Your task to perform on an android device: clear all cookies in the chrome app Image 0: 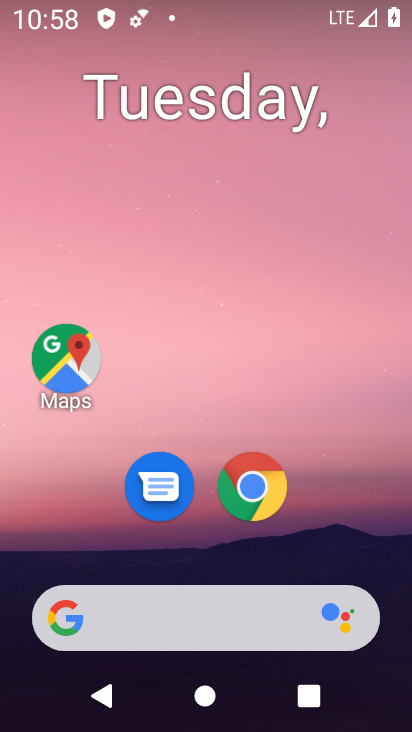
Step 0: drag from (365, 555) to (358, 140)
Your task to perform on an android device: clear all cookies in the chrome app Image 1: 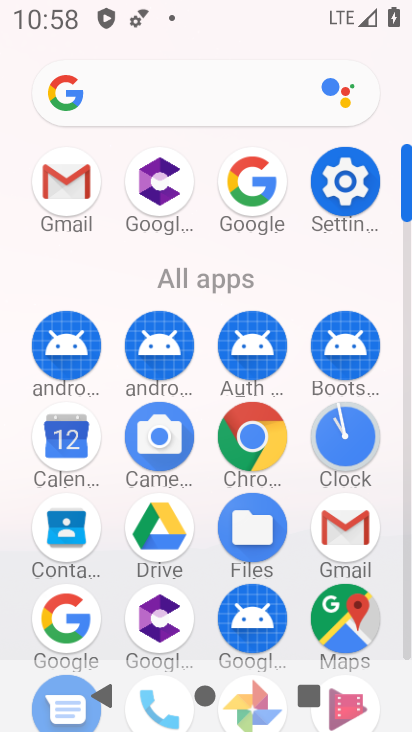
Step 1: click (268, 431)
Your task to perform on an android device: clear all cookies in the chrome app Image 2: 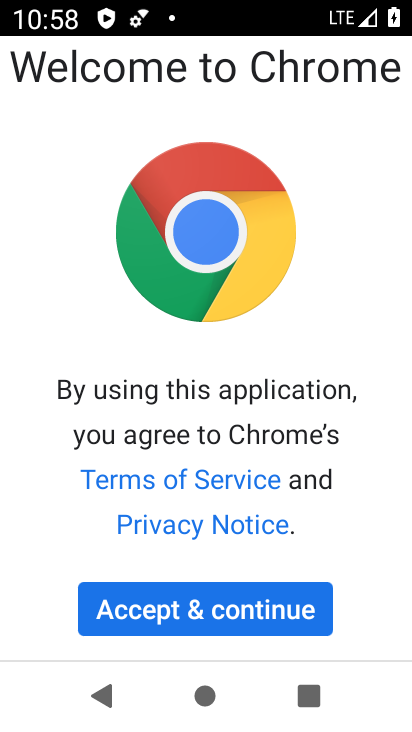
Step 2: click (303, 611)
Your task to perform on an android device: clear all cookies in the chrome app Image 3: 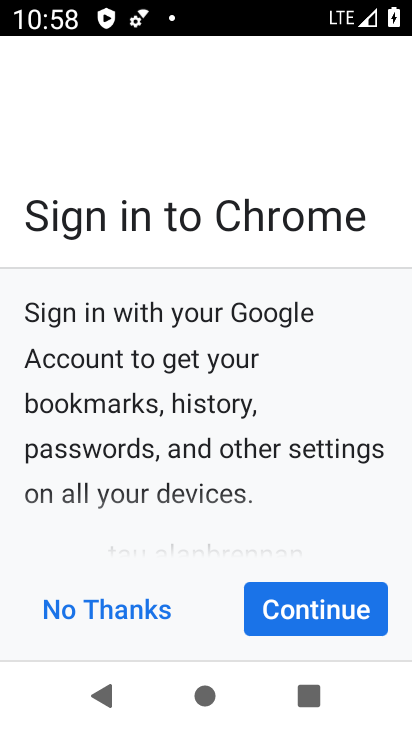
Step 3: click (303, 611)
Your task to perform on an android device: clear all cookies in the chrome app Image 4: 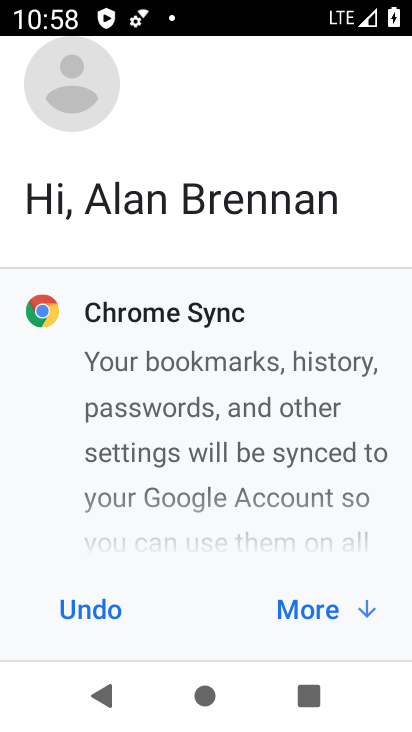
Step 4: click (303, 611)
Your task to perform on an android device: clear all cookies in the chrome app Image 5: 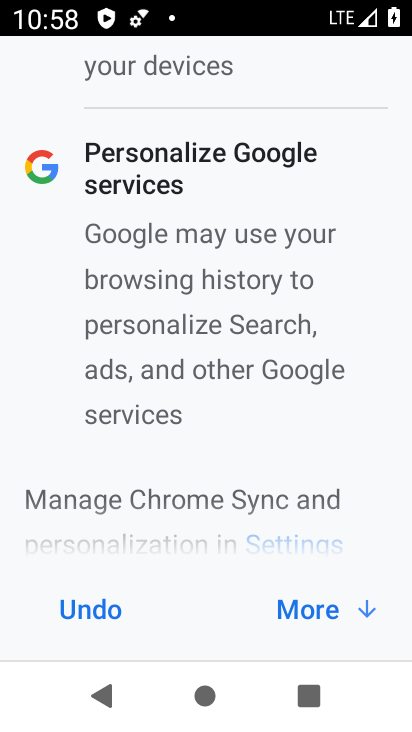
Step 5: click (303, 611)
Your task to perform on an android device: clear all cookies in the chrome app Image 6: 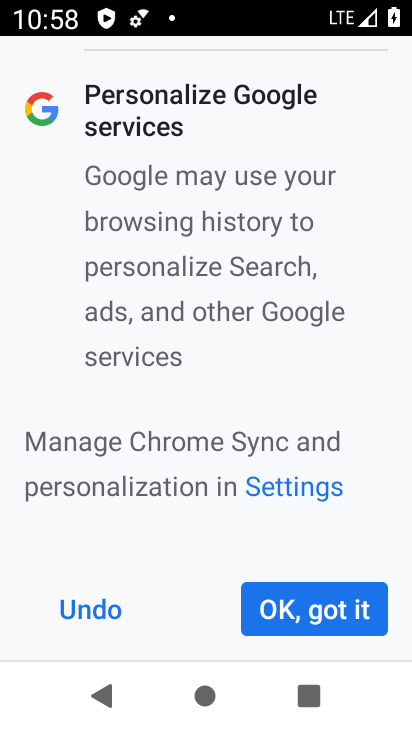
Step 6: click (303, 611)
Your task to perform on an android device: clear all cookies in the chrome app Image 7: 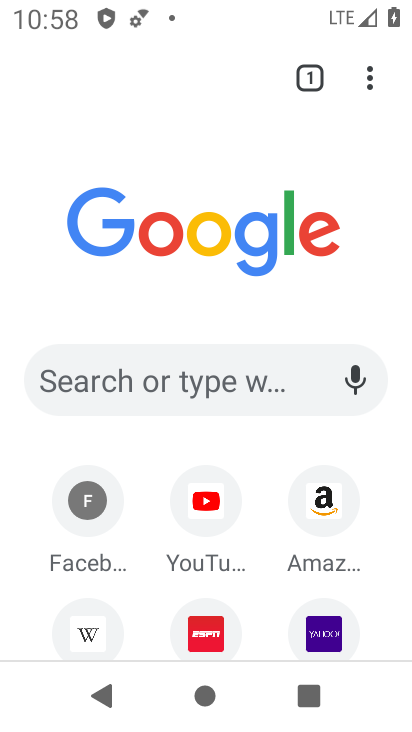
Step 7: click (369, 91)
Your task to perform on an android device: clear all cookies in the chrome app Image 8: 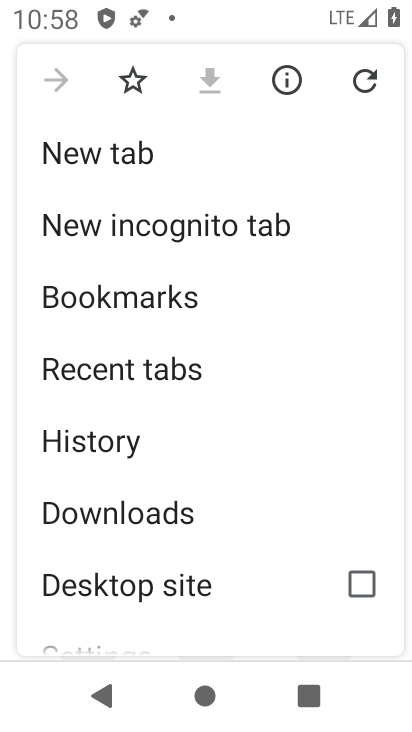
Step 8: drag from (303, 450) to (308, 340)
Your task to perform on an android device: clear all cookies in the chrome app Image 9: 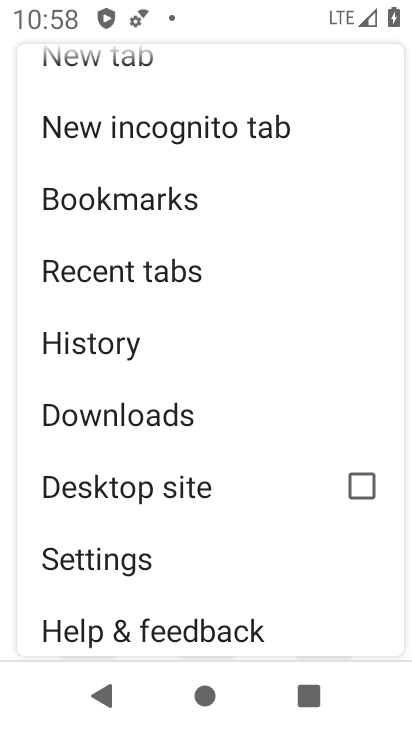
Step 9: click (181, 563)
Your task to perform on an android device: clear all cookies in the chrome app Image 10: 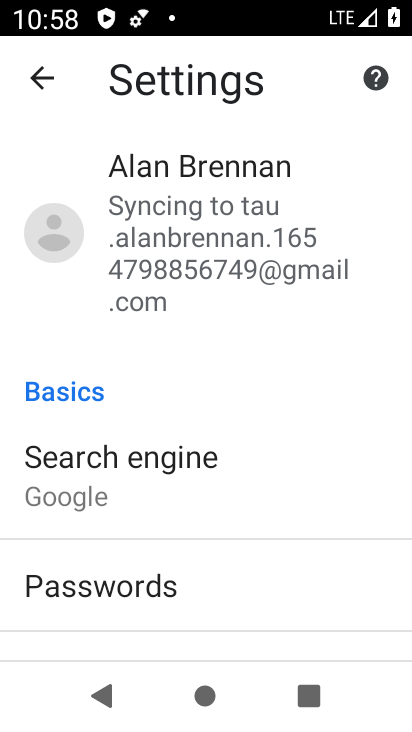
Step 10: drag from (325, 546) to (325, 402)
Your task to perform on an android device: clear all cookies in the chrome app Image 11: 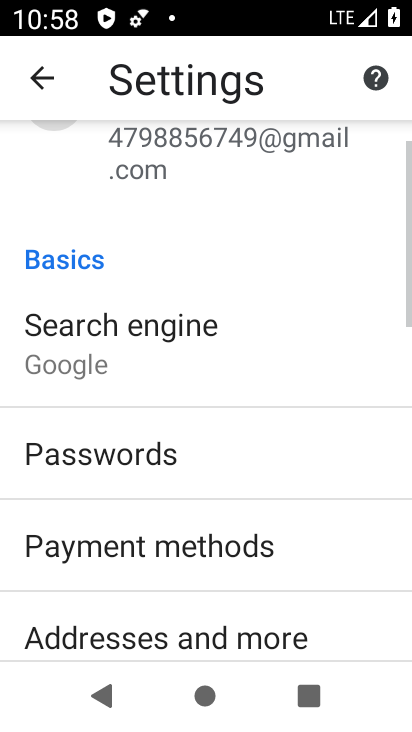
Step 11: drag from (340, 532) to (343, 383)
Your task to perform on an android device: clear all cookies in the chrome app Image 12: 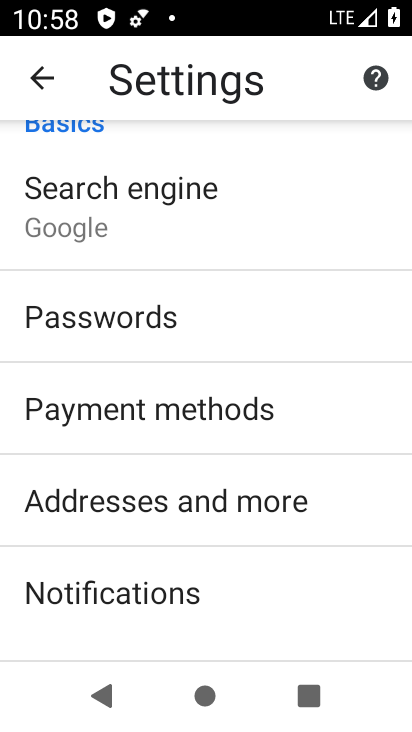
Step 12: drag from (338, 566) to (332, 440)
Your task to perform on an android device: clear all cookies in the chrome app Image 13: 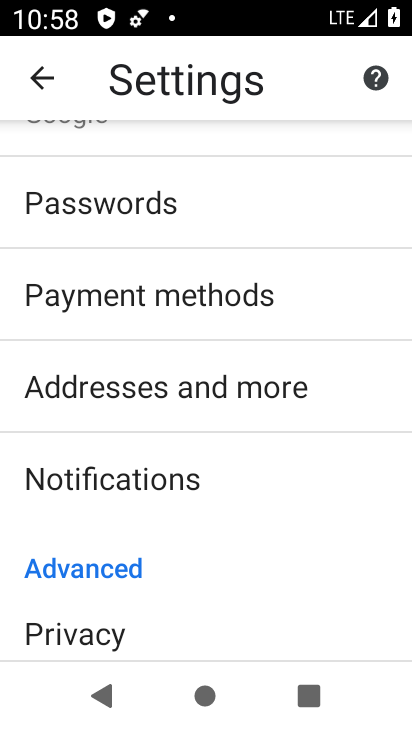
Step 13: drag from (325, 563) to (324, 410)
Your task to perform on an android device: clear all cookies in the chrome app Image 14: 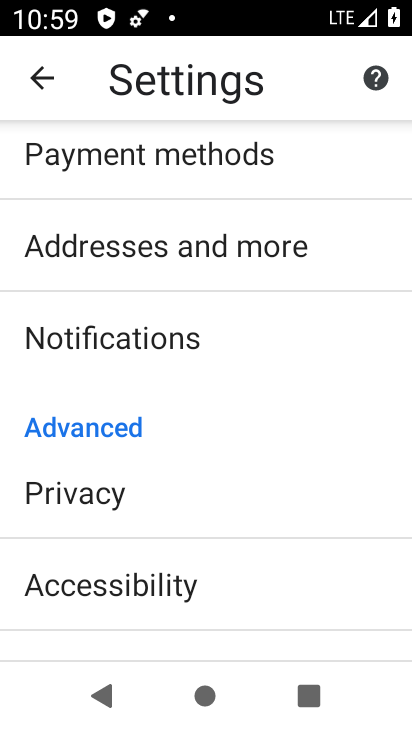
Step 14: click (214, 509)
Your task to perform on an android device: clear all cookies in the chrome app Image 15: 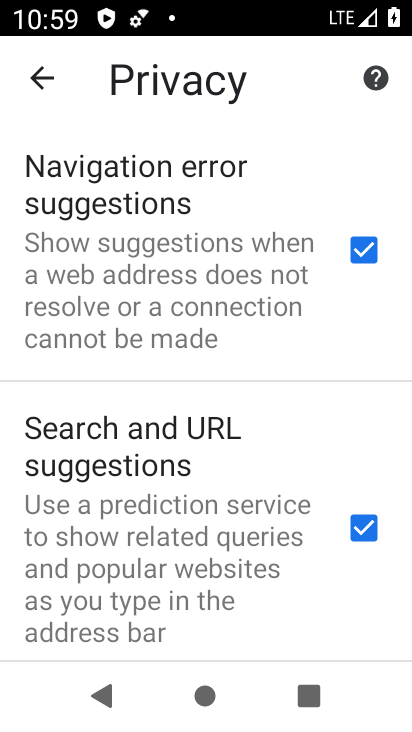
Step 15: drag from (279, 564) to (288, 408)
Your task to perform on an android device: clear all cookies in the chrome app Image 16: 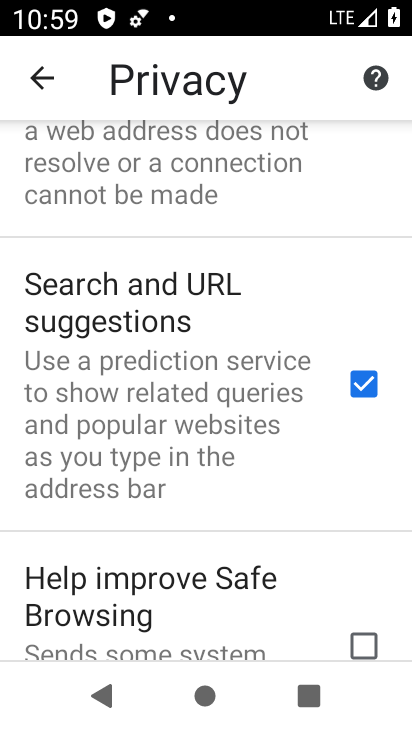
Step 16: drag from (296, 522) to (299, 335)
Your task to perform on an android device: clear all cookies in the chrome app Image 17: 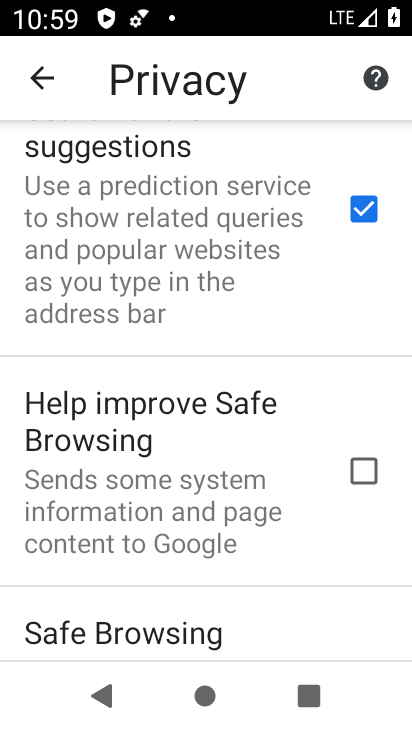
Step 17: drag from (299, 499) to (300, 311)
Your task to perform on an android device: clear all cookies in the chrome app Image 18: 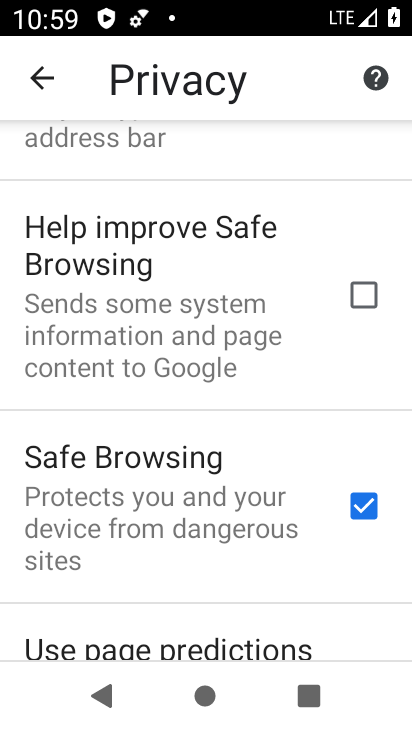
Step 18: drag from (280, 549) to (284, 322)
Your task to perform on an android device: clear all cookies in the chrome app Image 19: 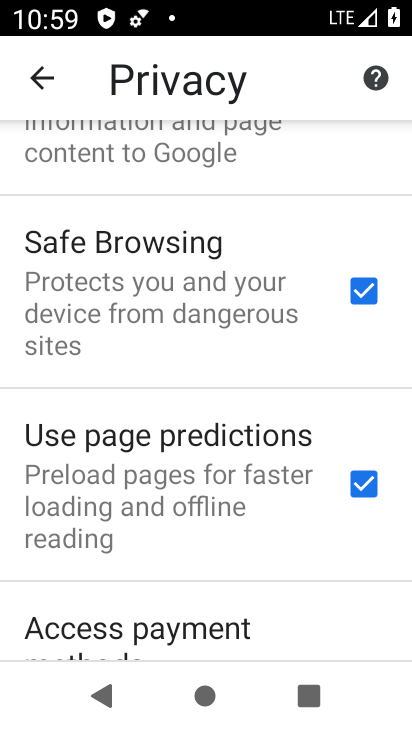
Step 19: drag from (293, 591) to (293, 320)
Your task to perform on an android device: clear all cookies in the chrome app Image 20: 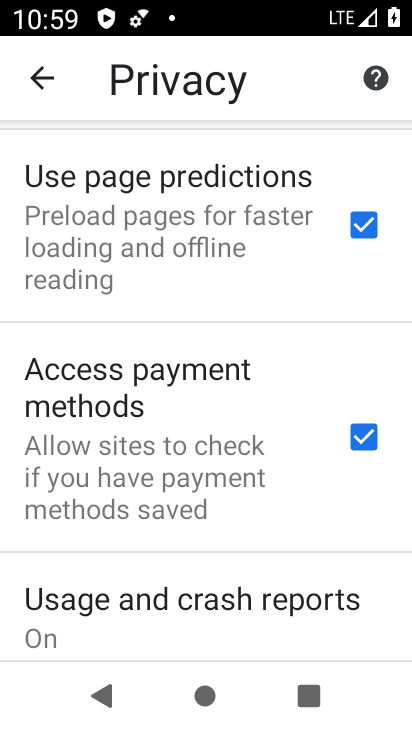
Step 20: drag from (281, 540) to (283, 401)
Your task to perform on an android device: clear all cookies in the chrome app Image 21: 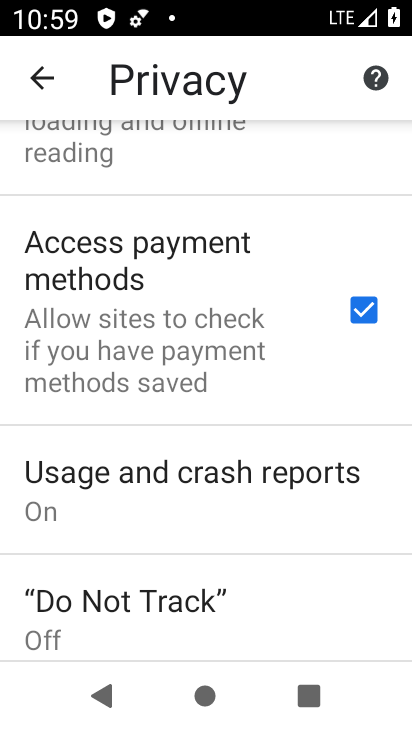
Step 21: drag from (294, 548) to (286, 340)
Your task to perform on an android device: clear all cookies in the chrome app Image 22: 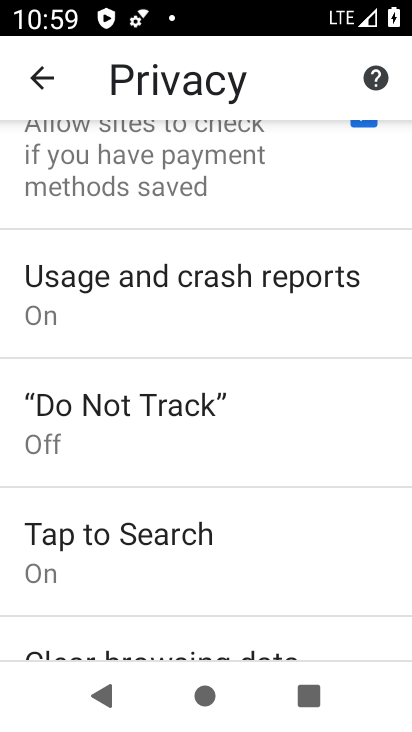
Step 22: drag from (274, 520) to (286, 411)
Your task to perform on an android device: clear all cookies in the chrome app Image 23: 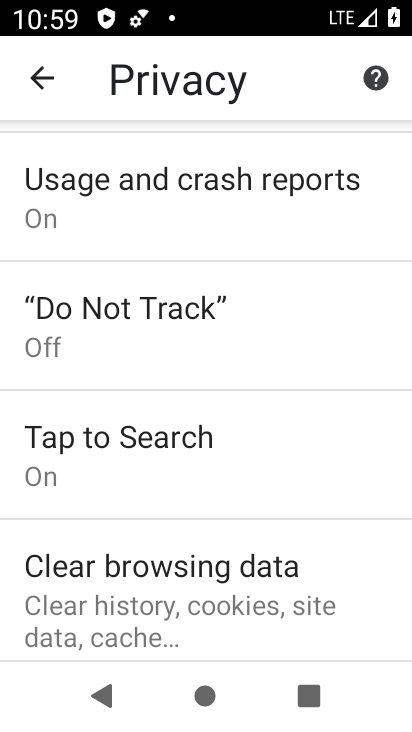
Step 23: drag from (304, 551) to (303, 442)
Your task to perform on an android device: clear all cookies in the chrome app Image 24: 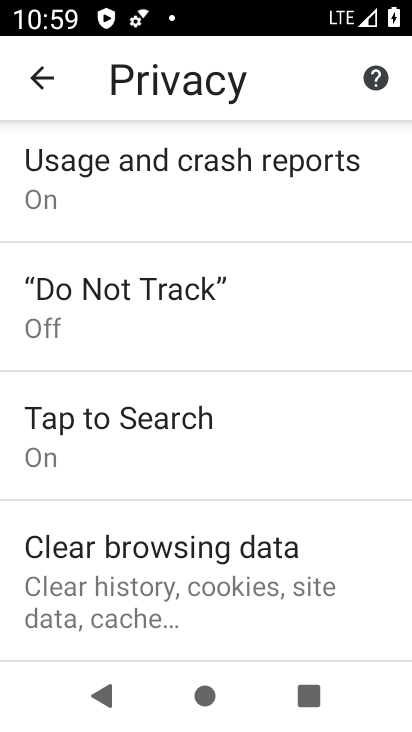
Step 24: drag from (287, 564) to (283, 446)
Your task to perform on an android device: clear all cookies in the chrome app Image 25: 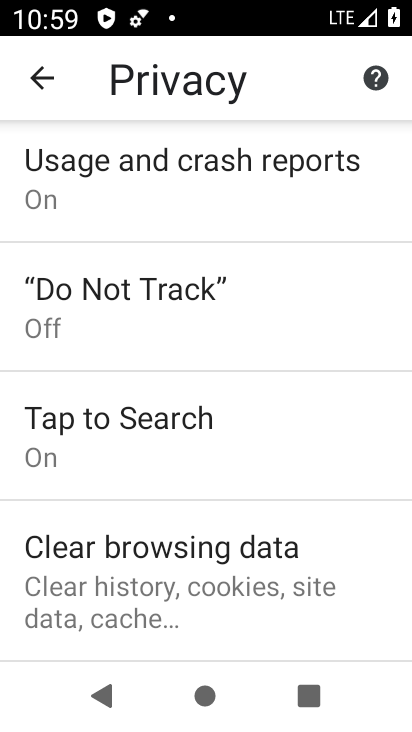
Step 25: click (292, 560)
Your task to perform on an android device: clear all cookies in the chrome app Image 26: 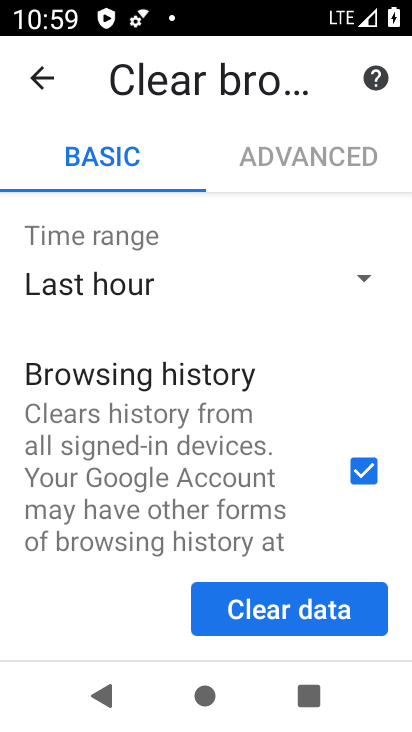
Step 26: click (309, 590)
Your task to perform on an android device: clear all cookies in the chrome app Image 27: 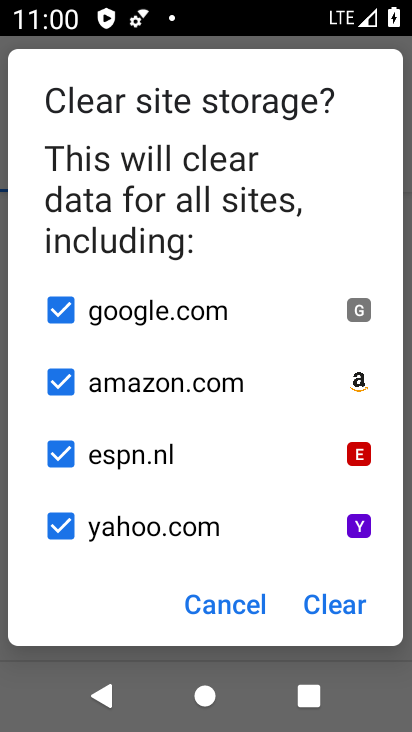
Step 27: click (348, 609)
Your task to perform on an android device: clear all cookies in the chrome app Image 28: 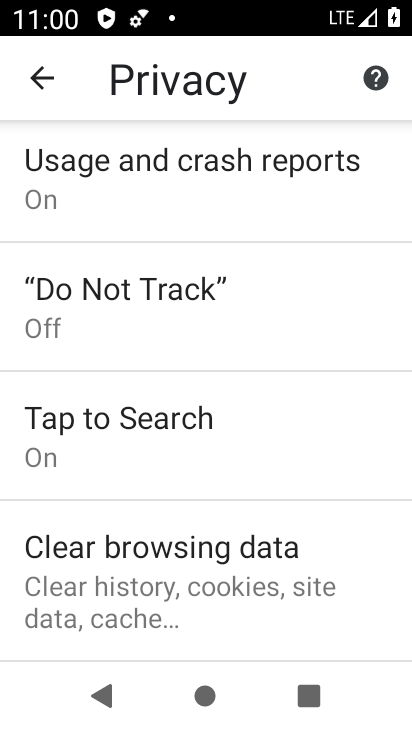
Step 28: task complete